Your task to perform on an android device: Search for the new nintendo switch on Walmart. Image 0: 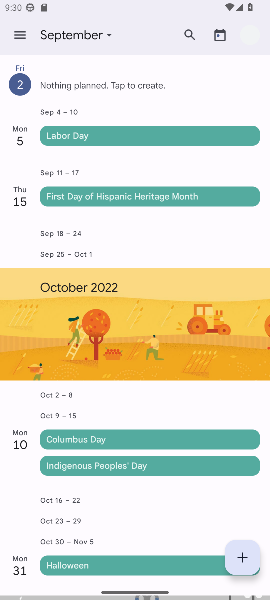
Step 0: press home button
Your task to perform on an android device: Search for the new nintendo switch on Walmart. Image 1: 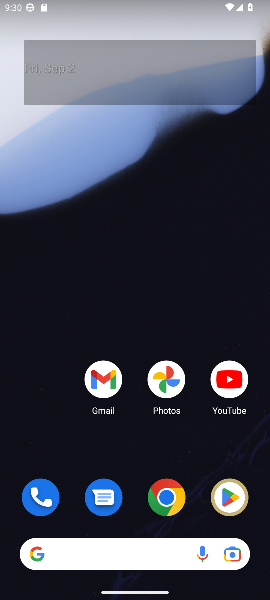
Step 1: click (130, 52)
Your task to perform on an android device: Search for the new nintendo switch on Walmart. Image 2: 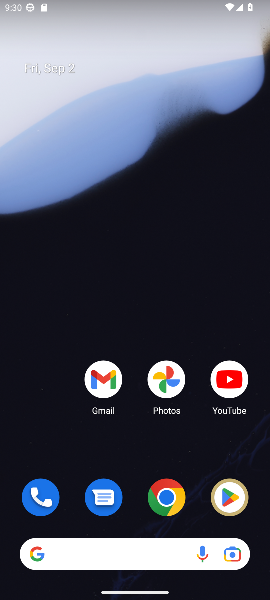
Step 2: drag from (127, 314) to (145, 168)
Your task to perform on an android device: Search for the new nintendo switch on Walmart. Image 3: 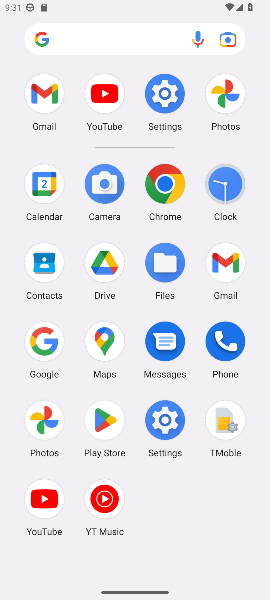
Step 3: click (36, 344)
Your task to perform on an android device: Search for the new nintendo switch on Walmart. Image 4: 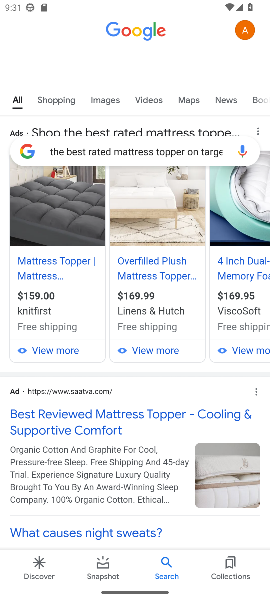
Step 4: press back button
Your task to perform on an android device: Search for the new nintendo switch on Walmart. Image 5: 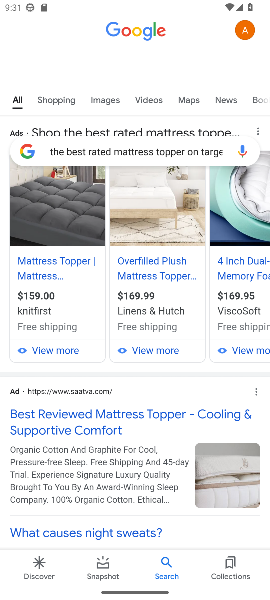
Step 5: press back button
Your task to perform on an android device: Search for the new nintendo switch on Walmart. Image 6: 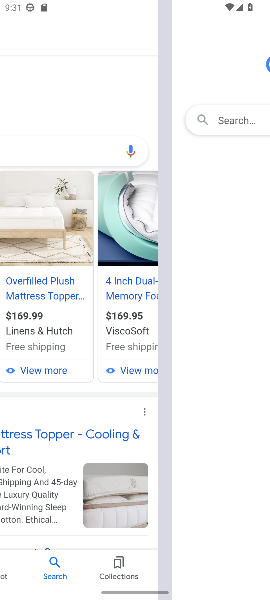
Step 6: press back button
Your task to perform on an android device: Search for the new nintendo switch on Walmart. Image 7: 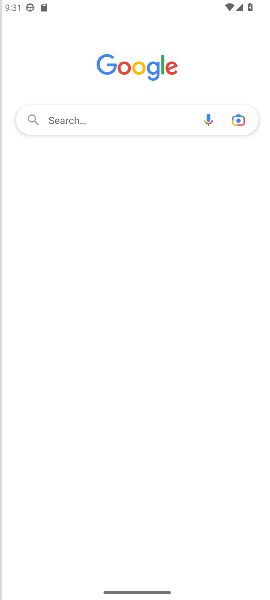
Step 7: press back button
Your task to perform on an android device: Search for the new nintendo switch on Walmart. Image 8: 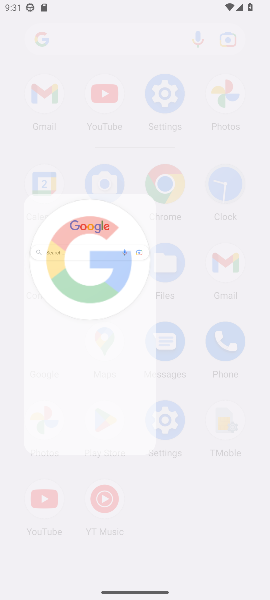
Step 8: press back button
Your task to perform on an android device: Search for the new nintendo switch on Walmart. Image 9: 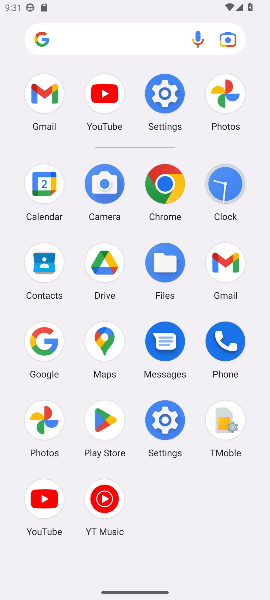
Step 9: press back button
Your task to perform on an android device: Search for the new nintendo switch on Walmart. Image 10: 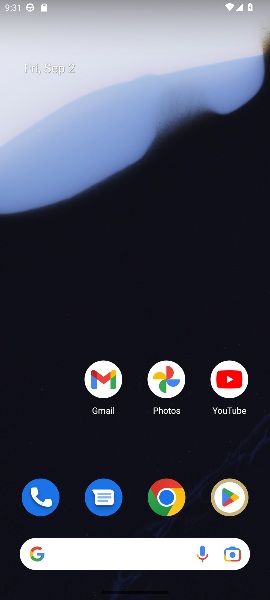
Step 10: press back button
Your task to perform on an android device: Search for the new nintendo switch on Walmart. Image 11: 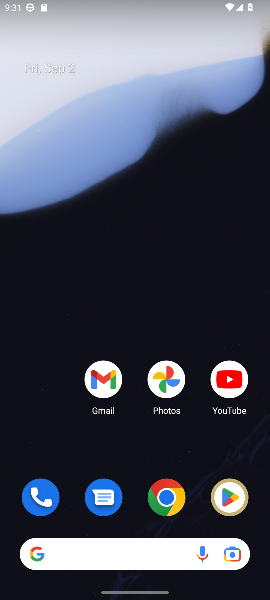
Step 11: press back button
Your task to perform on an android device: Search for the new nintendo switch on Walmart. Image 12: 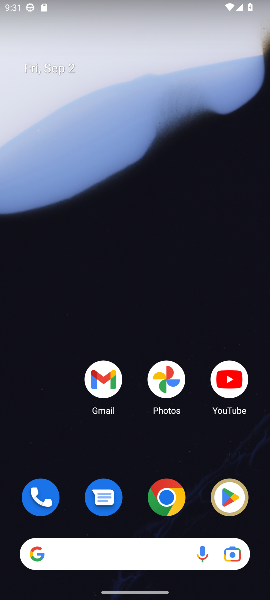
Step 12: press back button
Your task to perform on an android device: Search for the new nintendo switch on Walmart. Image 13: 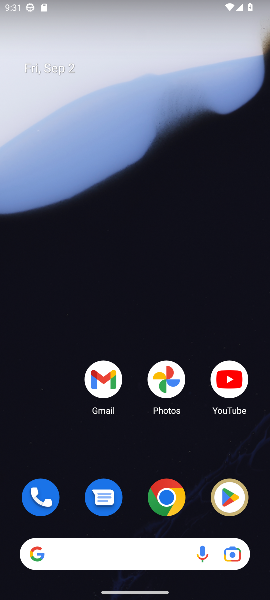
Step 13: press back button
Your task to perform on an android device: Search for the new nintendo switch on Walmart. Image 14: 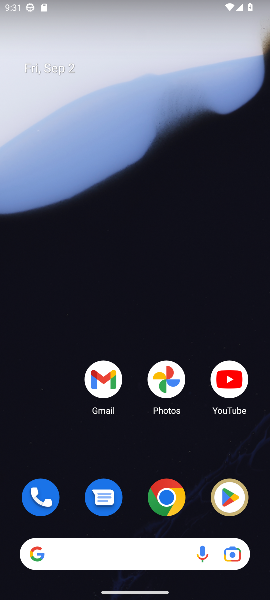
Step 14: press back button
Your task to perform on an android device: Search for the new nintendo switch on Walmart. Image 15: 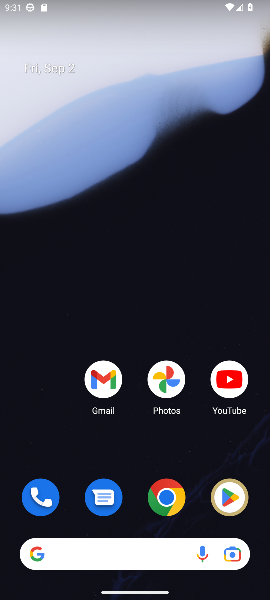
Step 15: drag from (134, 512) to (136, 184)
Your task to perform on an android device: Search for the new nintendo switch on Walmart. Image 16: 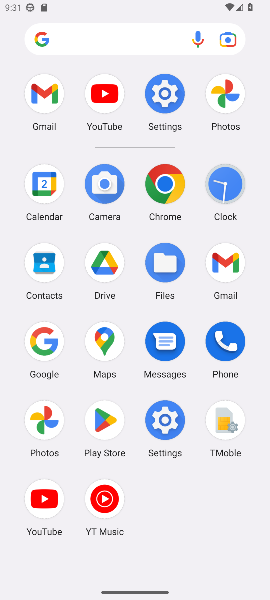
Step 16: click (49, 354)
Your task to perform on an android device: Search for the new nintendo switch on Walmart. Image 17: 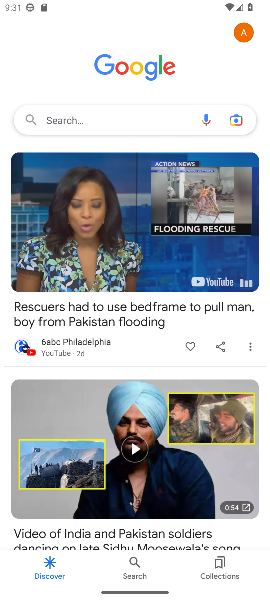
Step 17: click (67, 132)
Your task to perform on an android device: Search for the new nintendo switch on Walmart. Image 18: 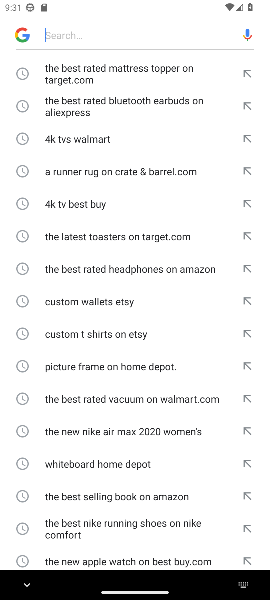
Step 18: type "the new nintendo switch on Walmart."
Your task to perform on an android device: Search for the new nintendo switch on Walmart. Image 19: 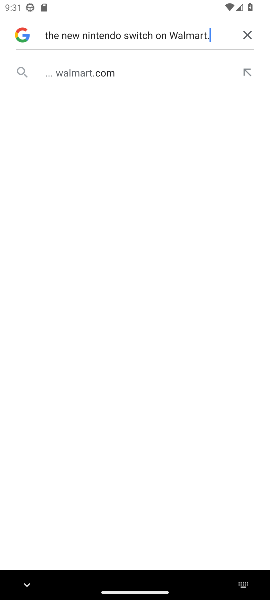
Step 19: click (92, 72)
Your task to perform on an android device: Search for the new nintendo switch on Walmart. Image 20: 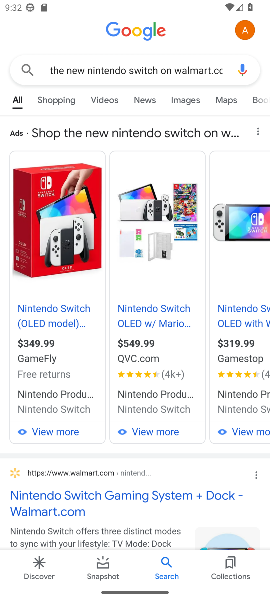
Step 20: task complete